Your task to perform on an android device: turn off sleep mode Image 0: 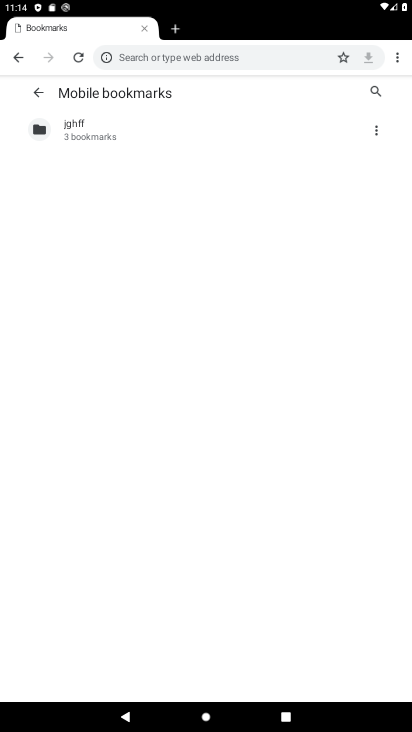
Step 0: press home button
Your task to perform on an android device: turn off sleep mode Image 1: 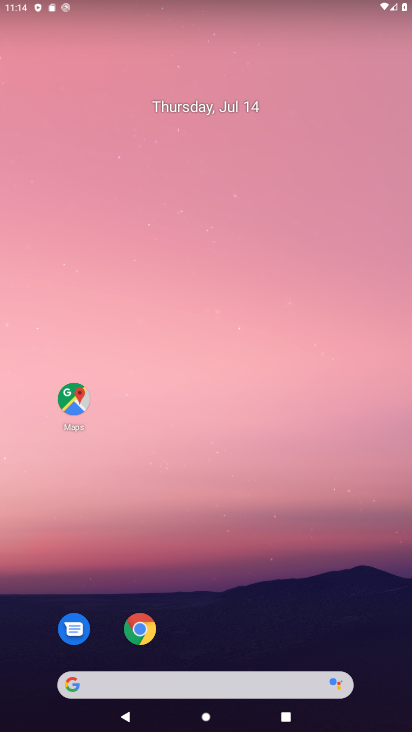
Step 1: drag from (228, 654) to (177, 49)
Your task to perform on an android device: turn off sleep mode Image 2: 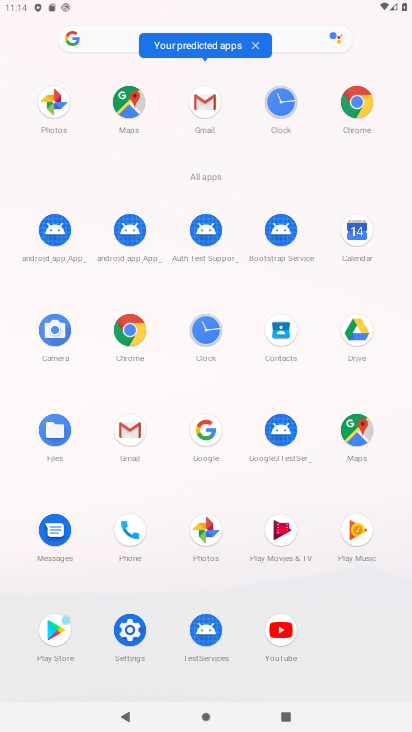
Step 2: click (117, 640)
Your task to perform on an android device: turn off sleep mode Image 3: 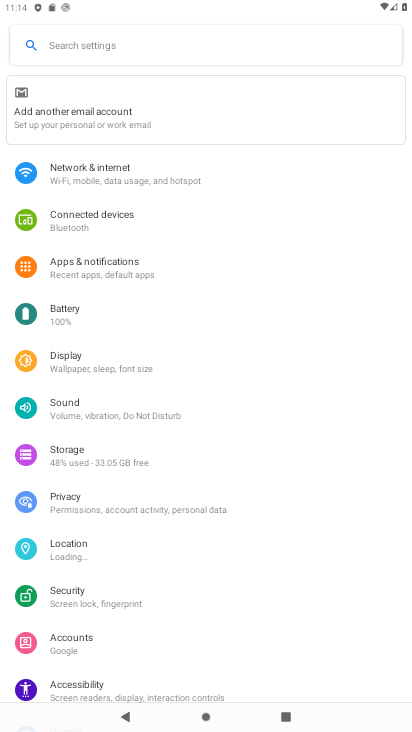
Step 3: task complete